Your task to perform on an android device: Show me recent news Image 0: 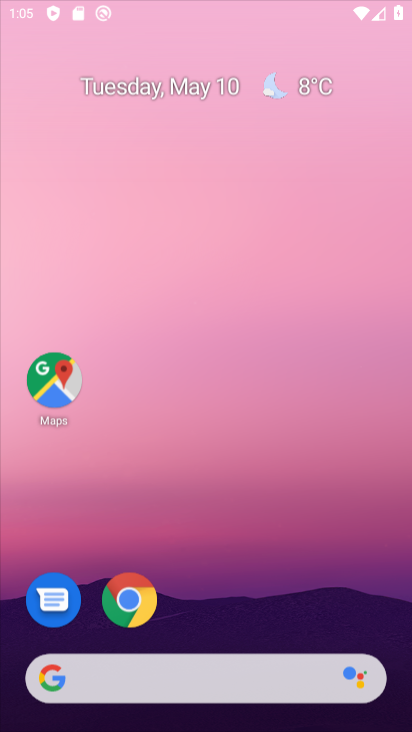
Step 0: press home button
Your task to perform on an android device: Show me recent news Image 1: 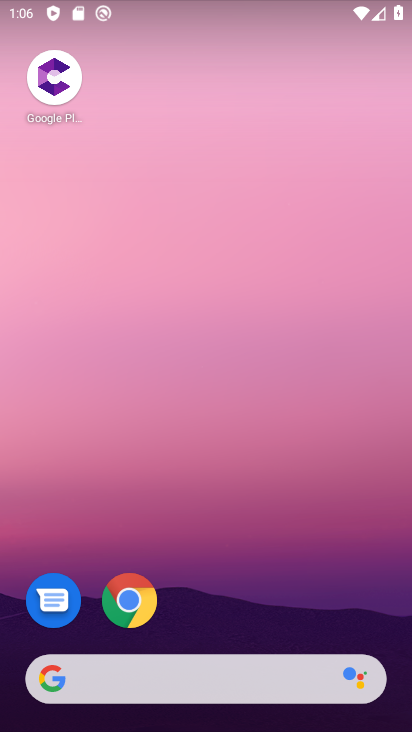
Step 1: task complete